Your task to perform on an android device: Empty the shopping cart on ebay.com. Add "lg ultragear" to the cart on ebay.com, then select checkout. Image 0: 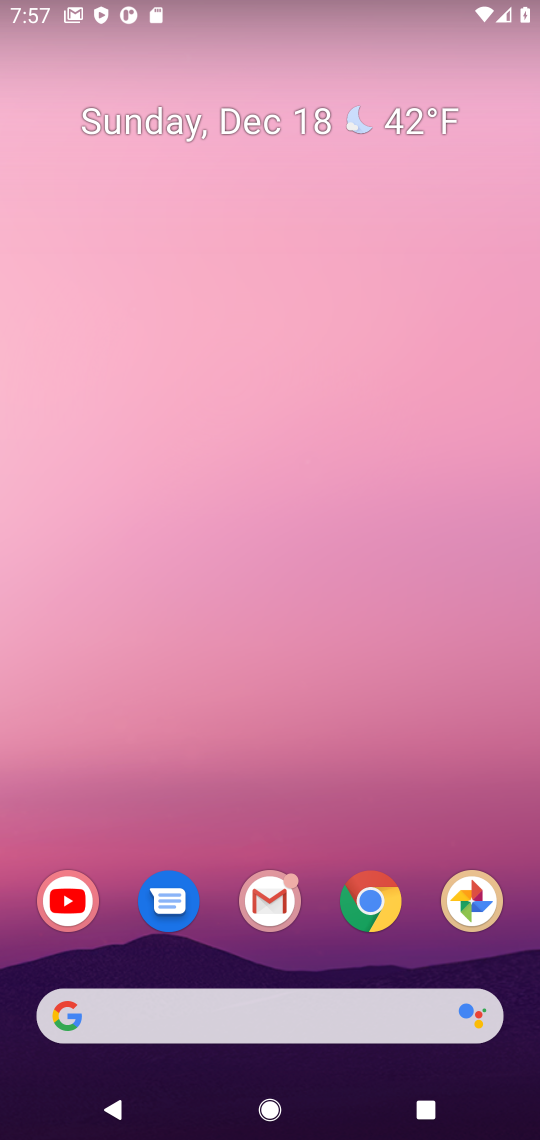
Step 0: click (363, 917)
Your task to perform on an android device: Empty the shopping cart on ebay.com. Add "lg ultragear" to the cart on ebay.com, then select checkout. Image 1: 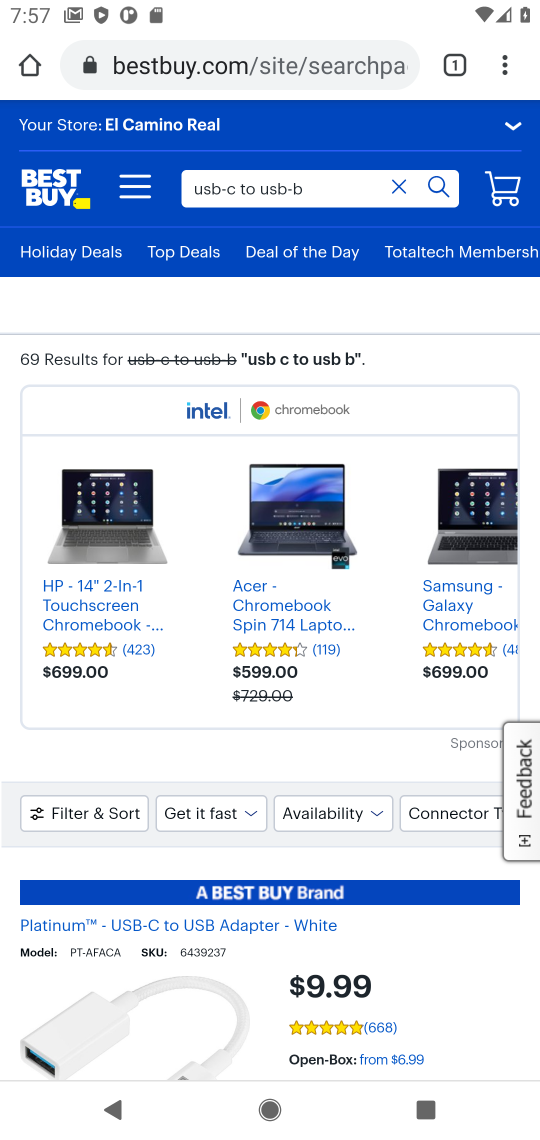
Step 1: click (244, 76)
Your task to perform on an android device: Empty the shopping cart on ebay.com. Add "lg ultragear" to the cart on ebay.com, then select checkout. Image 2: 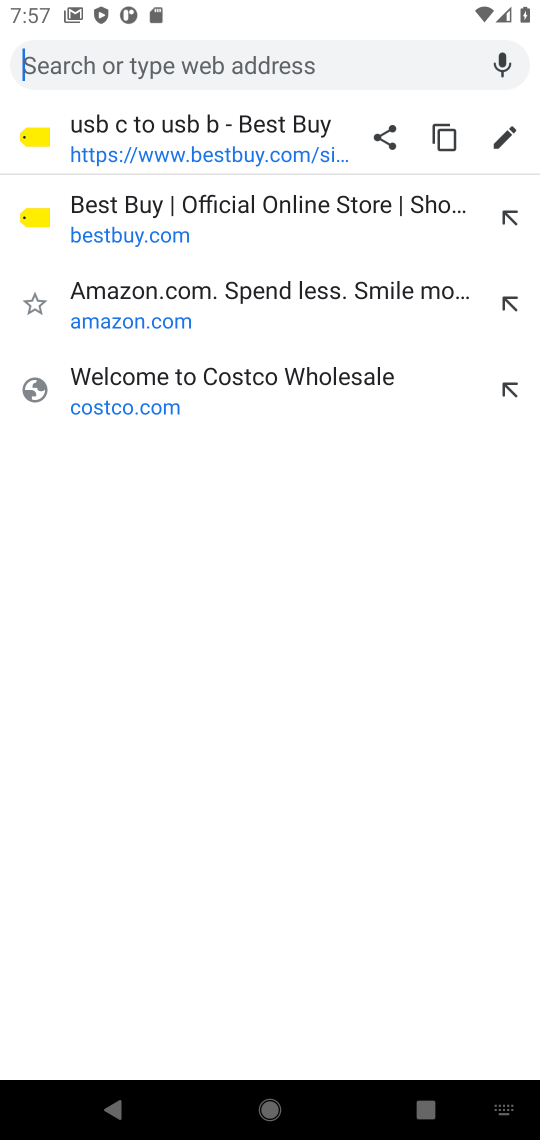
Step 2: type "ebay"
Your task to perform on an android device: Empty the shopping cart on ebay.com. Add "lg ultragear" to the cart on ebay.com, then select checkout. Image 3: 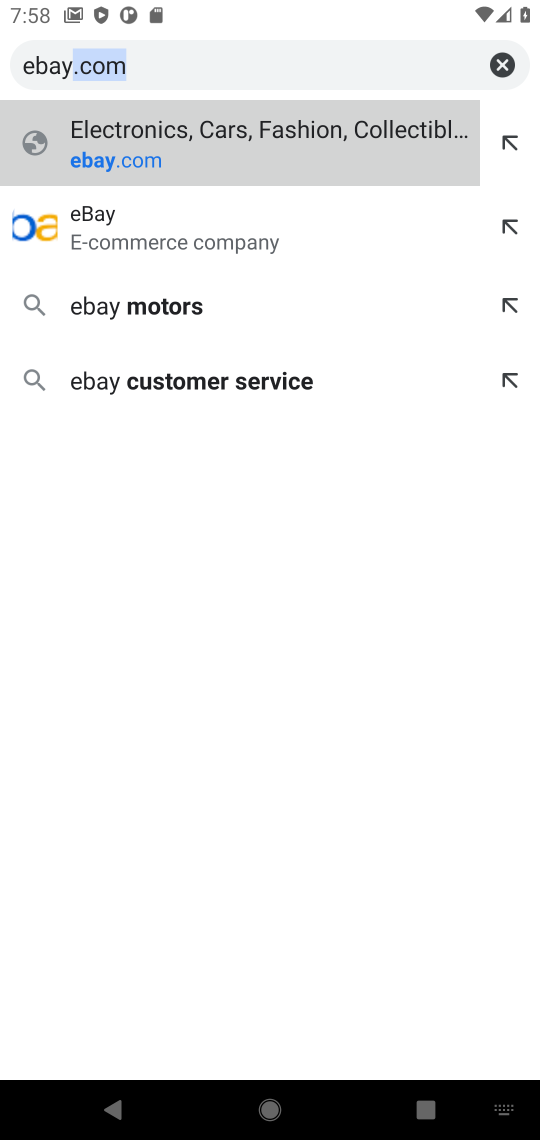
Step 3: click (131, 128)
Your task to perform on an android device: Empty the shopping cart on ebay.com. Add "lg ultragear" to the cart on ebay.com, then select checkout. Image 4: 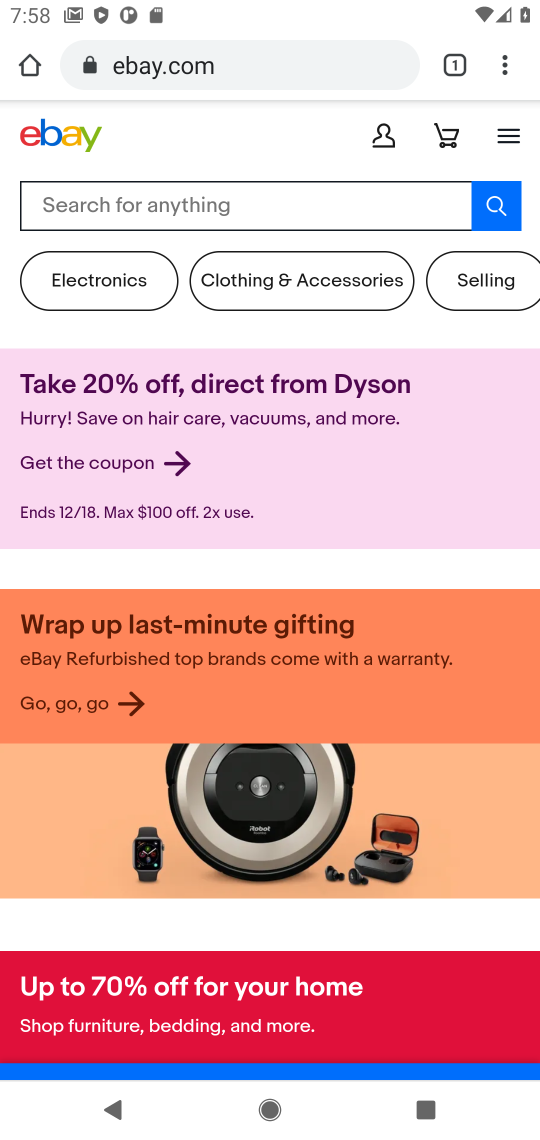
Step 4: click (231, 199)
Your task to perform on an android device: Empty the shopping cart on ebay.com. Add "lg ultragear" to the cart on ebay.com, then select checkout. Image 5: 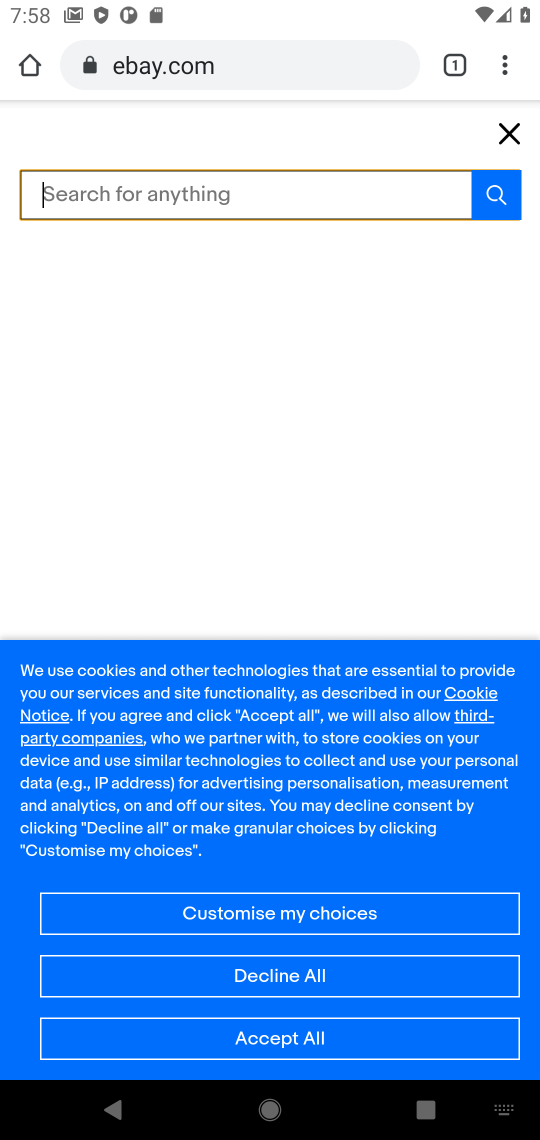
Step 5: type "lg ultragear"
Your task to perform on an android device: Empty the shopping cart on ebay.com. Add "lg ultragear" to the cart on ebay.com, then select checkout. Image 6: 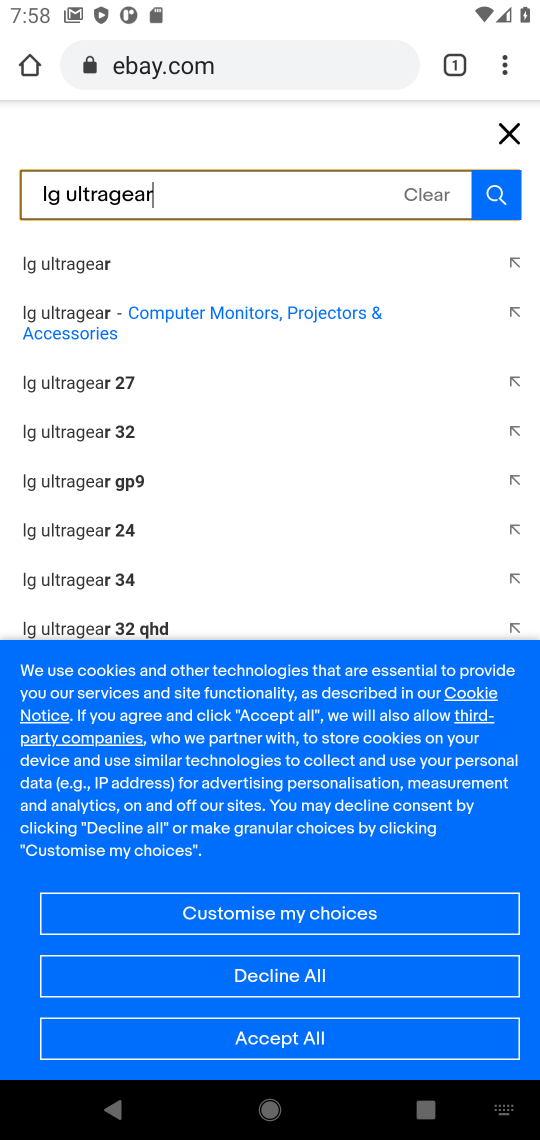
Step 6: click (35, 272)
Your task to perform on an android device: Empty the shopping cart on ebay.com. Add "lg ultragear" to the cart on ebay.com, then select checkout. Image 7: 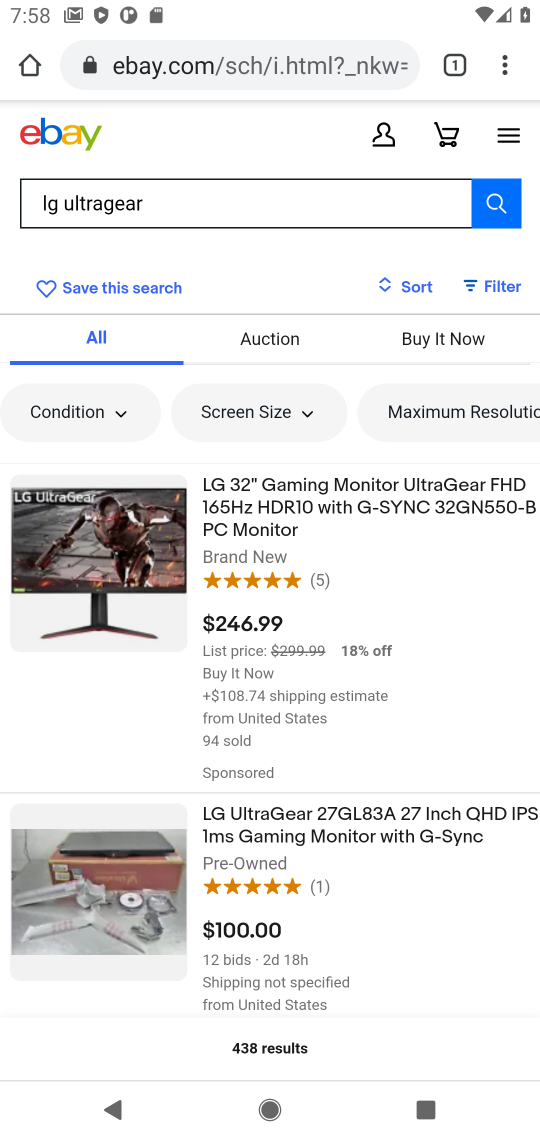
Step 7: click (287, 534)
Your task to perform on an android device: Empty the shopping cart on ebay.com. Add "lg ultragear" to the cart on ebay.com, then select checkout. Image 8: 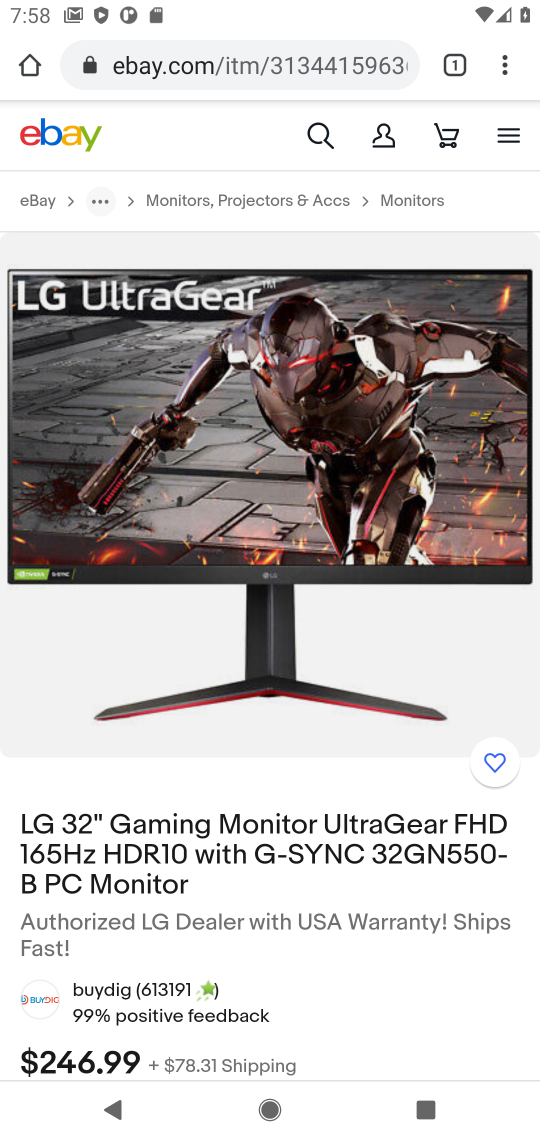
Step 8: drag from (342, 1002) to (341, 514)
Your task to perform on an android device: Empty the shopping cart on ebay.com. Add "lg ultragear" to the cart on ebay.com, then select checkout. Image 9: 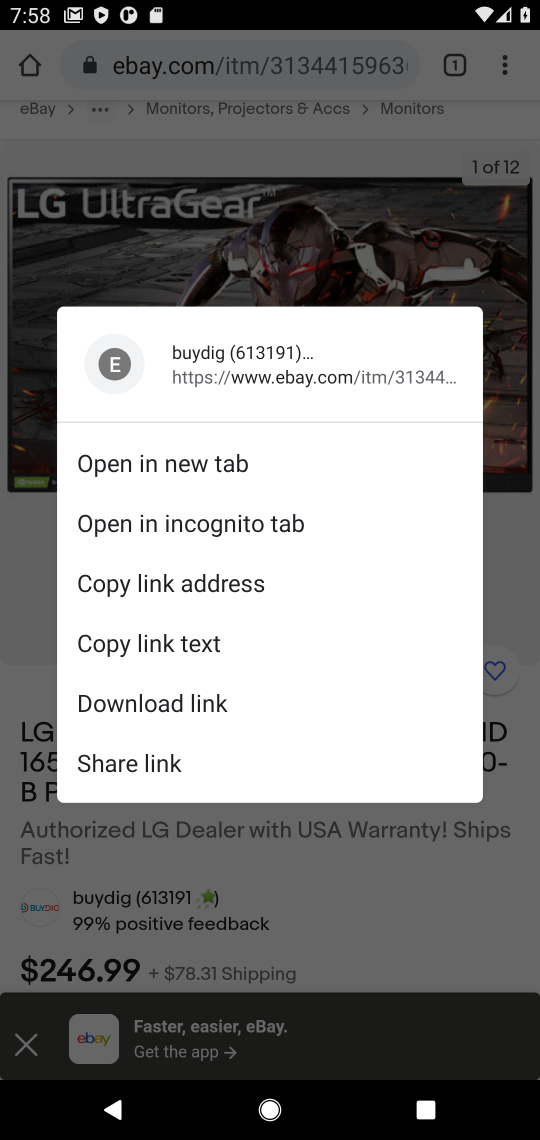
Step 9: click (396, 877)
Your task to perform on an android device: Empty the shopping cart on ebay.com. Add "lg ultragear" to the cart on ebay.com, then select checkout. Image 10: 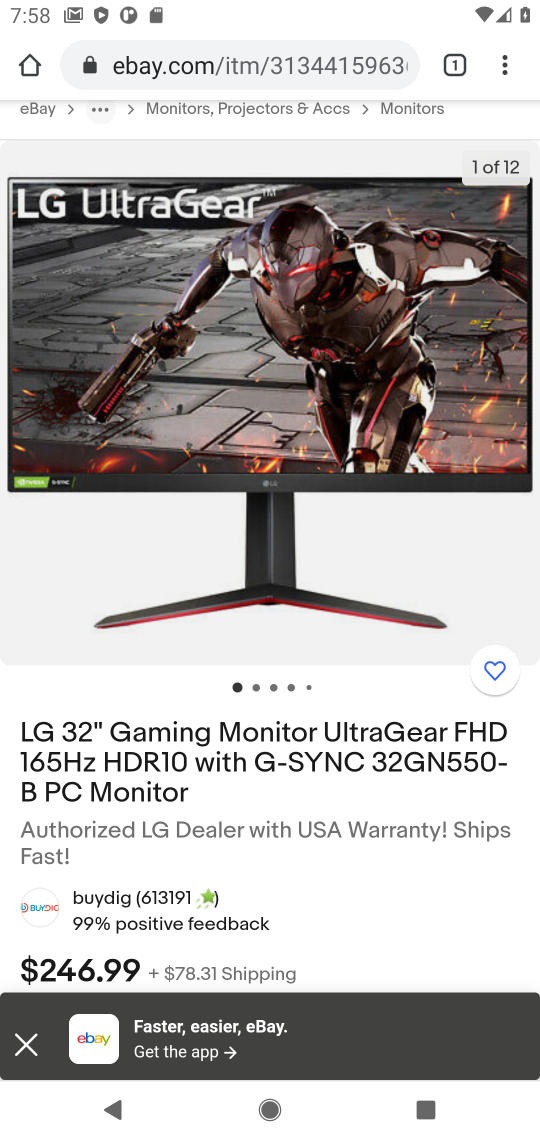
Step 10: drag from (396, 877) to (313, 425)
Your task to perform on an android device: Empty the shopping cart on ebay.com. Add "lg ultragear" to the cart on ebay.com, then select checkout. Image 11: 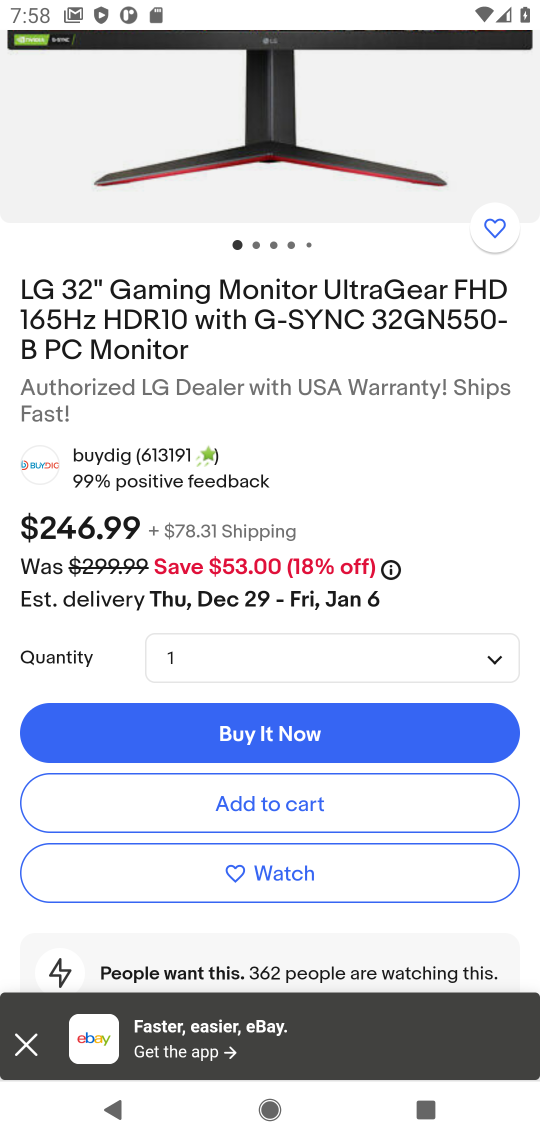
Step 11: click (320, 787)
Your task to perform on an android device: Empty the shopping cart on ebay.com. Add "lg ultragear" to the cart on ebay.com, then select checkout. Image 12: 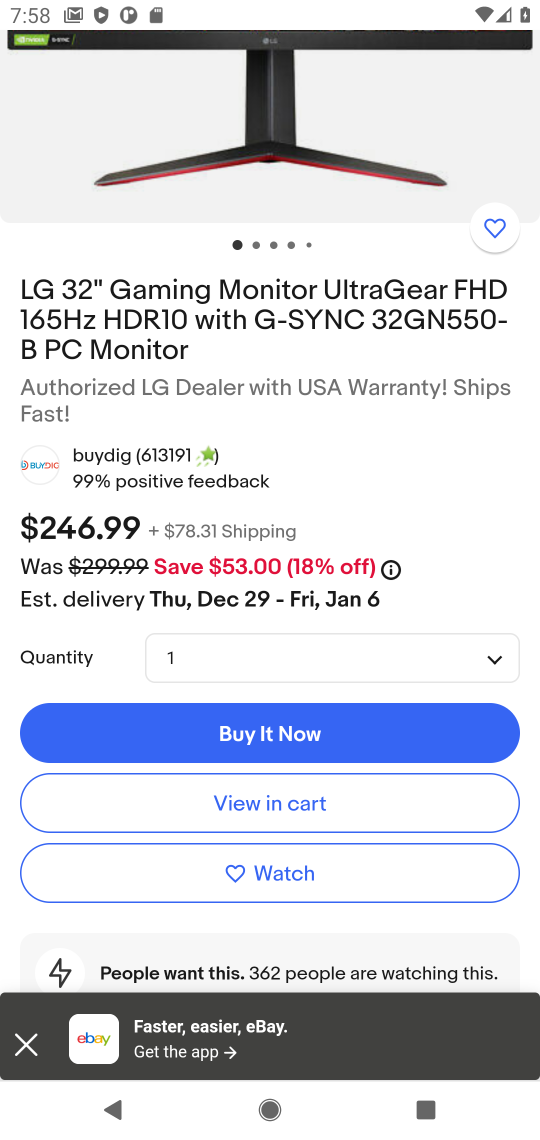
Step 12: task complete